Your task to perform on an android device: turn off priority inbox in the gmail app Image 0: 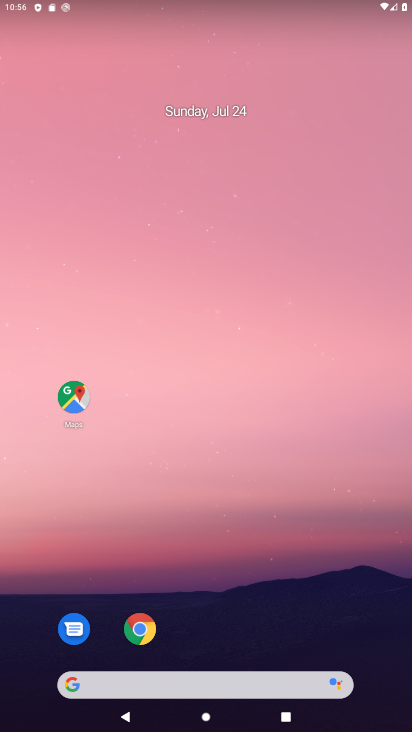
Step 0: drag from (173, 638) to (311, 24)
Your task to perform on an android device: turn off priority inbox in the gmail app Image 1: 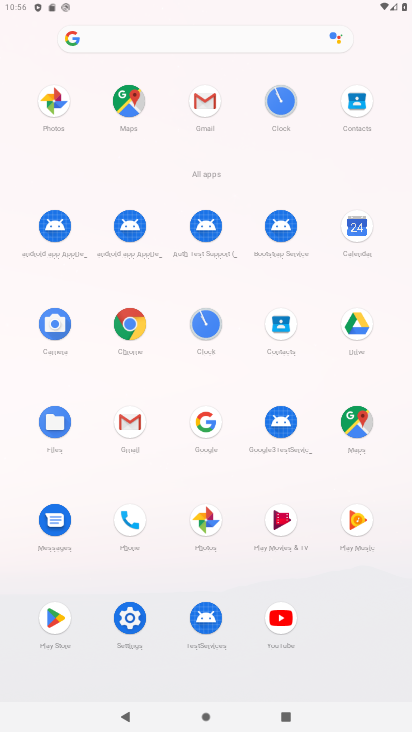
Step 1: click (193, 129)
Your task to perform on an android device: turn off priority inbox in the gmail app Image 2: 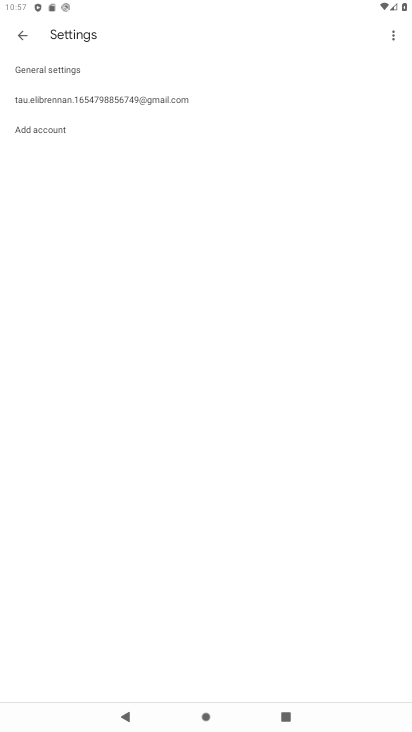
Step 2: click (156, 108)
Your task to perform on an android device: turn off priority inbox in the gmail app Image 3: 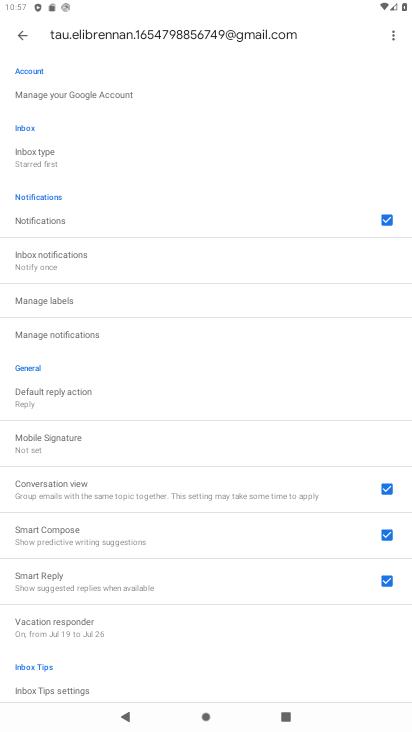
Step 3: click (92, 161)
Your task to perform on an android device: turn off priority inbox in the gmail app Image 4: 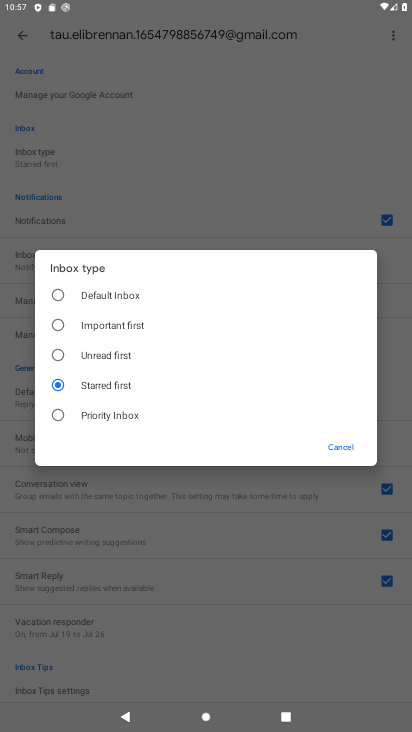
Step 4: task complete